Your task to perform on an android device: open a bookmark in the chrome app Image 0: 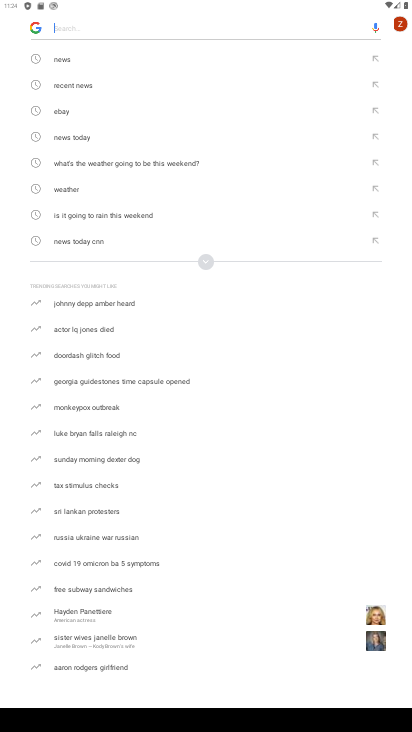
Step 0: press home button
Your task to perform on an android device: open a bookmark in the chrome app Image 1: 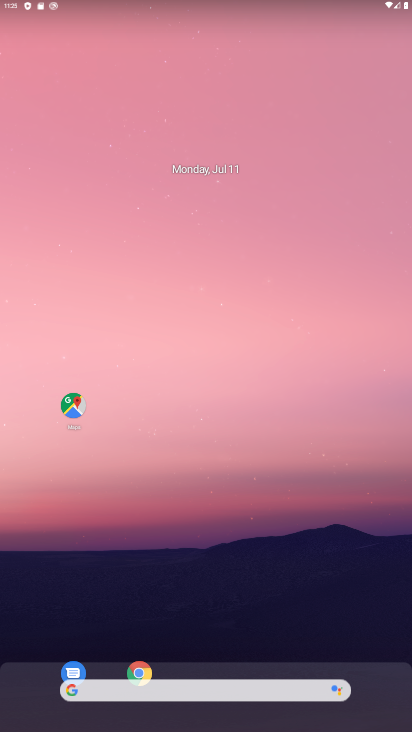
Step 1: press home button
Your task to perform on an android device: open a bookmark in the chrome app Image 2: 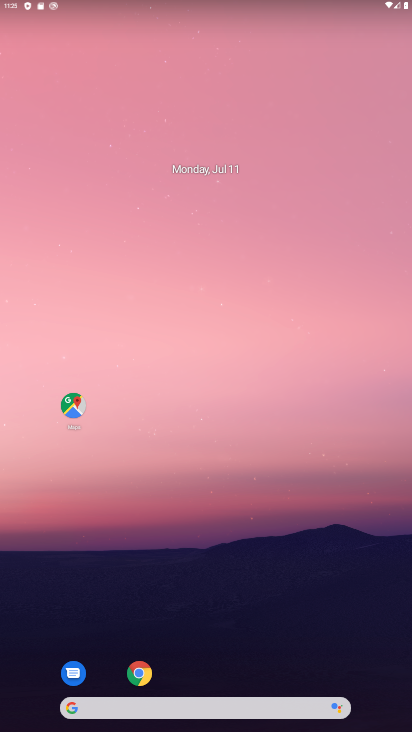
Step 2: click (139, 673)
Your task to perform on an android device: open a bookmark in the chrome app Image 3: 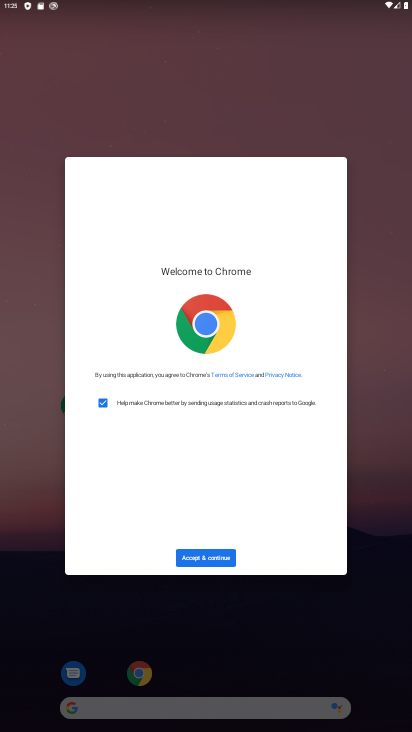
Step 3: click (202, 555)
Your task to perform on an android device: open a bookmark in the chrome app Image 4: 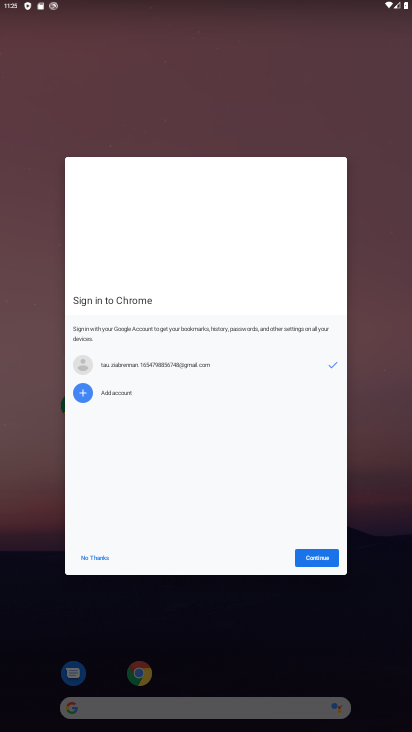
Step 4: click (334, 556)
Your task to perform on an android device: open a bookmark in the chrome app Image 5: 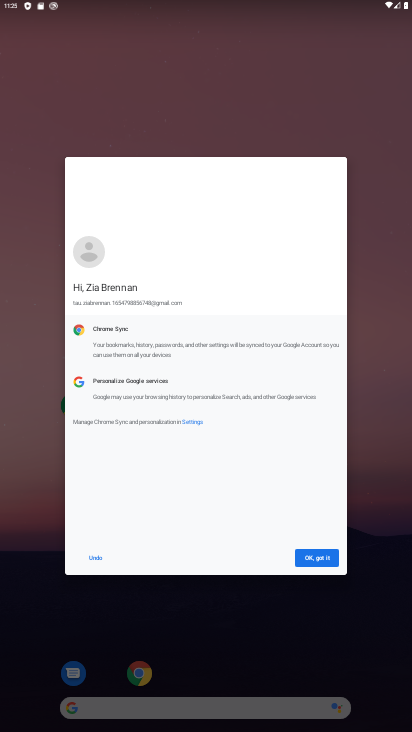
Step 5: click (319, 558)
Your task to perform on an android device: open a bookmark in the chrome app Image 6: 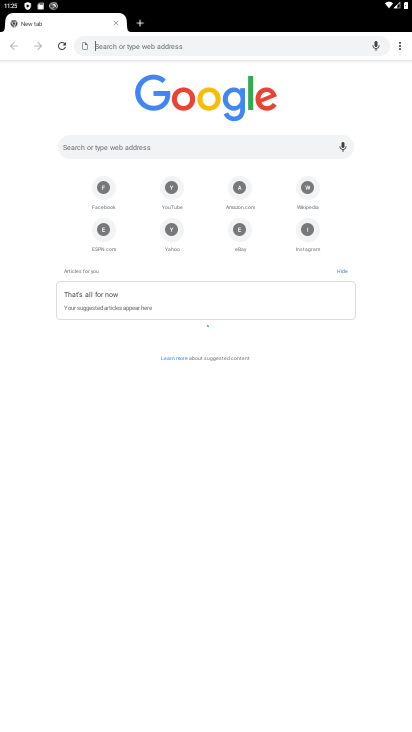
Step 6: click (398, 46)
Your task to perform on an android device: open a bookmark in the chrome app Image 7: 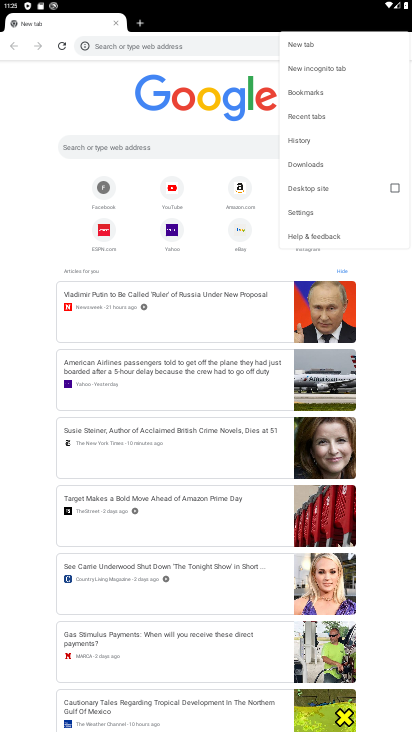
Step 7: click (323, 89)
Your task to perform on an android device: open a bookmark in the chrome app Image 8: 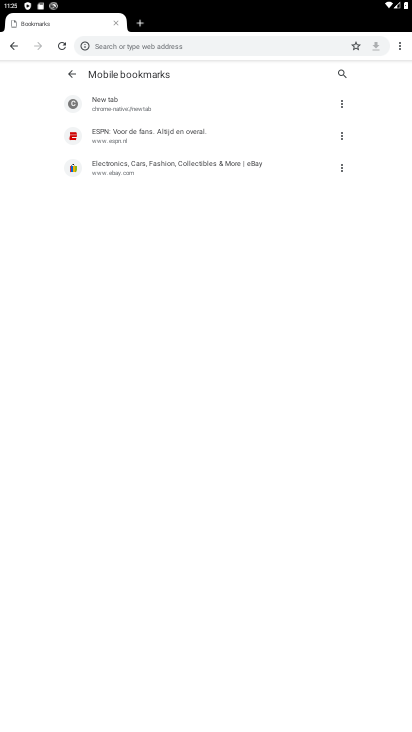
Step 8: task complete